Your task to perform on an android device: turn on the 12-hour format for clock Image 0: 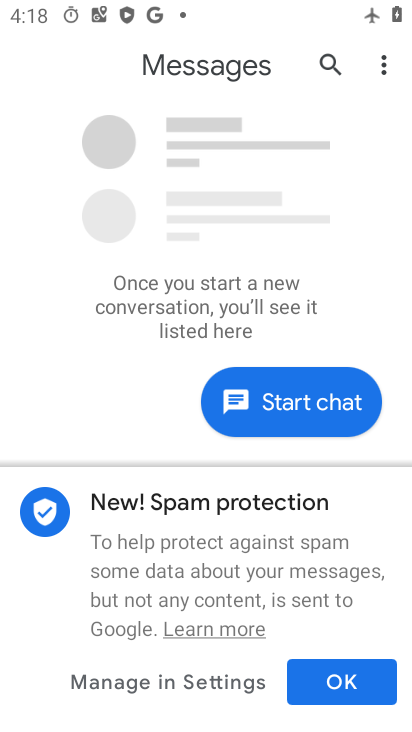
Step 0: press home button
Your task to perform on an android device: turn on the 12-hour format for clock Image 1: 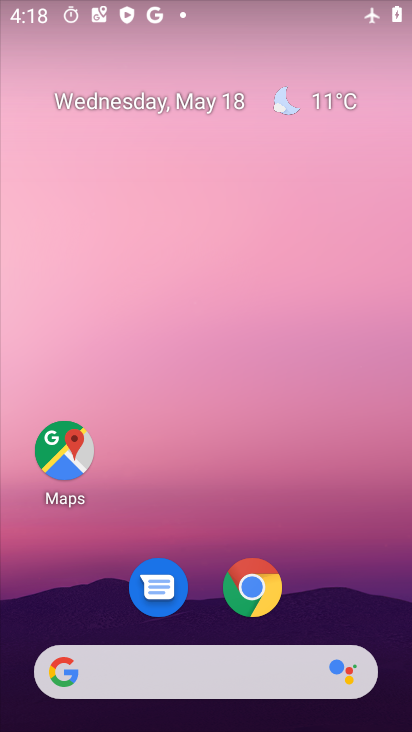
Step 1: drag from (120, 507) to (149, 296)
Your task to perform on an android device: turn on the 12-hour format for clock Image 2: 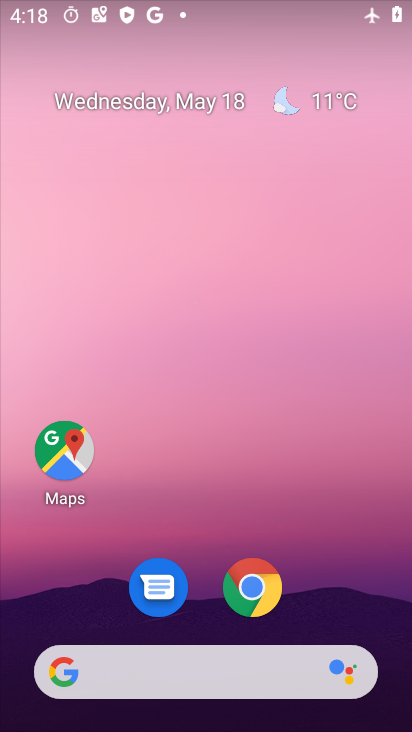
Step 2: drag from (112, 700) to (237, 241)
Your task to perform on an android device: turn on the 12-hour format for clock Image 3: 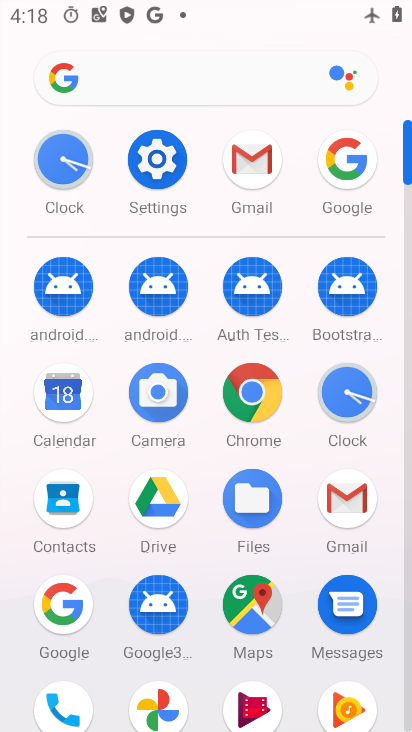
Step 3: click (333, 406)
Your task to perform on an android device: turn on the 12-hour format for clock Image 4: 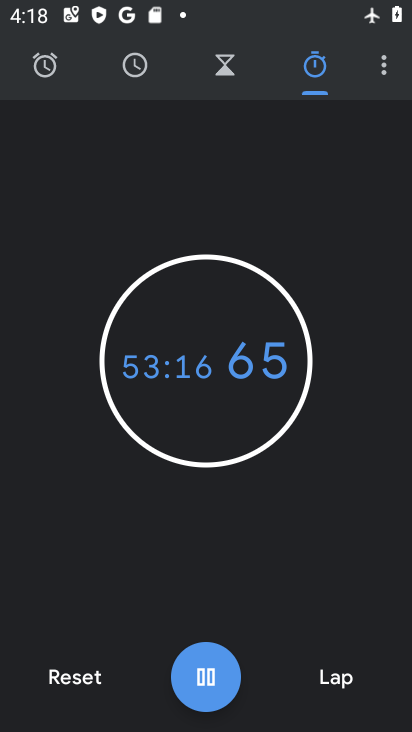
Step 4: click (393, 72)
Your task to perform on an android device: turn on the 12-hour format for clock Image 5: 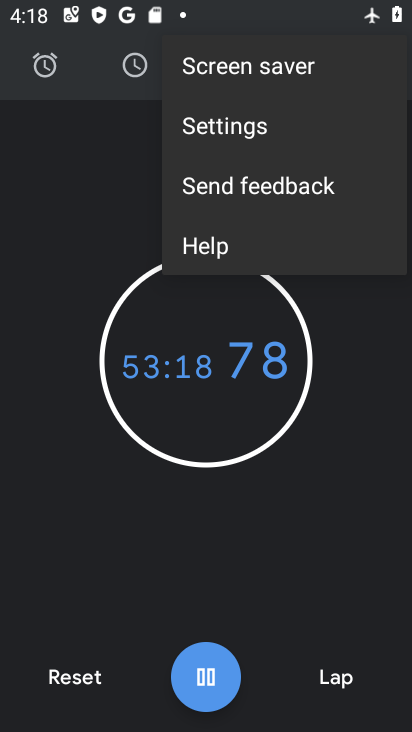
Step 5: click (303, 129)
Your task to perform on an android device: turn on the 12-hour format for clock Image 6: 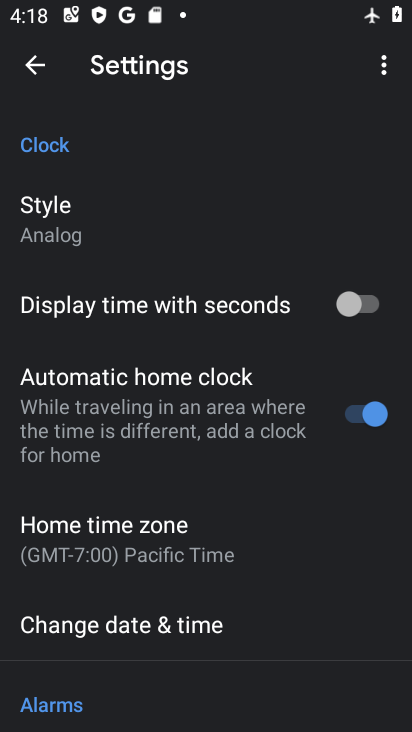
Step 6: click (189, 627)
Your task to perform on an android device: turn on the 12-hour format for clock Image 7: 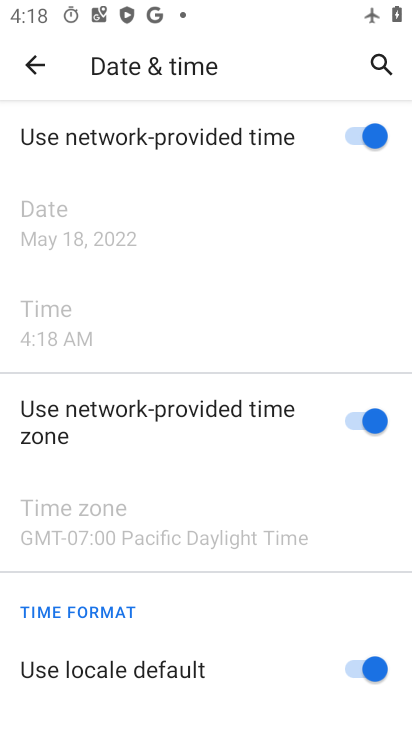
Step 7: task complete